Your task to perform on an android device: Go to internet settings Image 0: 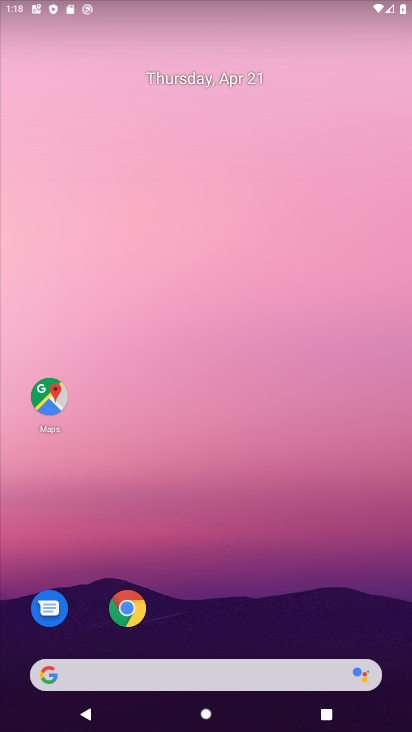
Step 0: drag from (315, 452) to (330, 90)
Your task to perform on an android device: Go to internet settings Image 1: 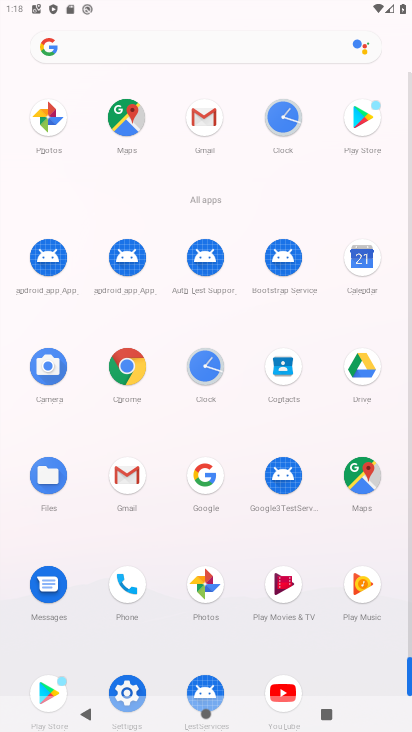
Step 1: drag from (372, 633) to (322, 337)
Your task to perform on an android device: Go to internet settings Image 2: 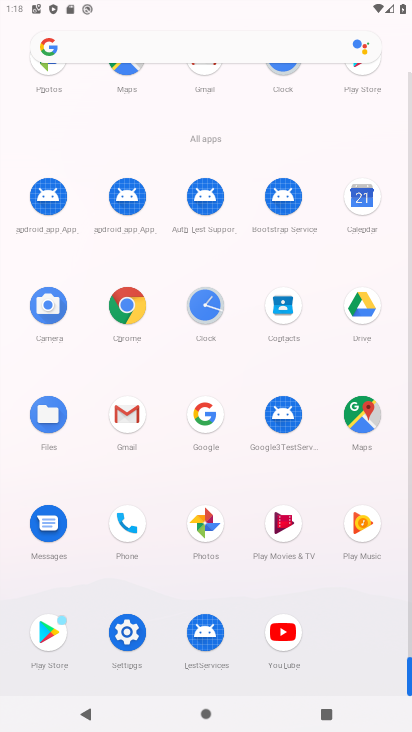
Step 2: click (130, 626)
Your task to perform on an android device: Go to internet settings Image 3: 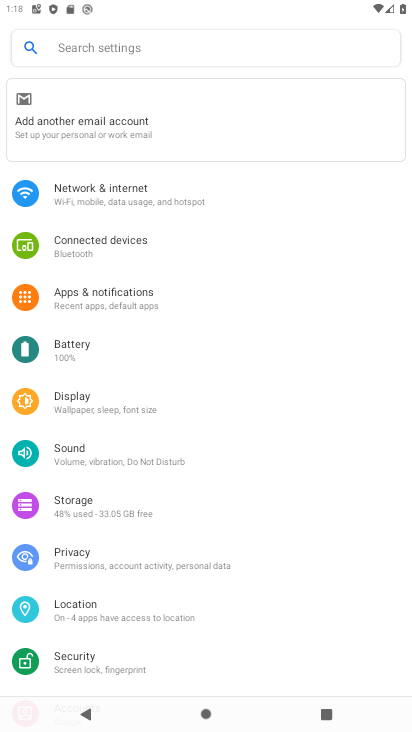
Step 3: click (96, 206)
Your task to perform on an android device: Go to internet settings Image 4: 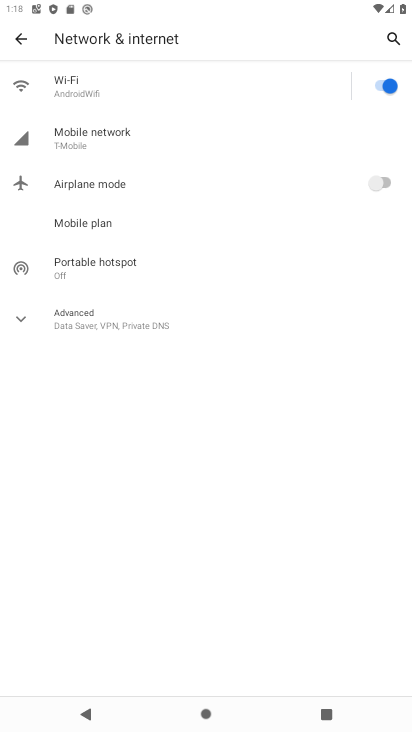
Step 4: click (93, 135)
Your task to perform on an android device: Go to internet settings Image 5: 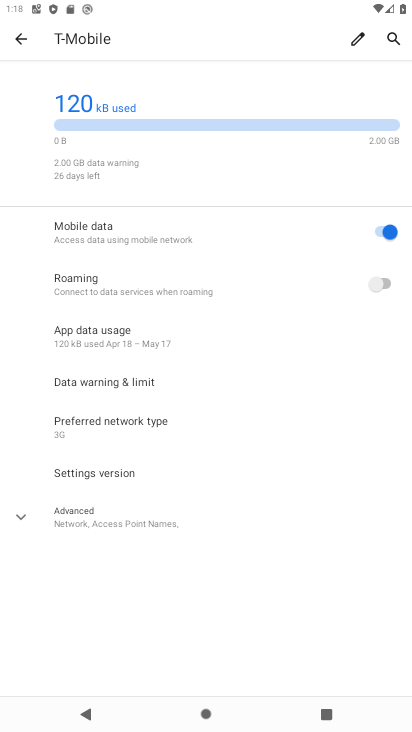
Step 5: task complete